Your task to perform on an android device: turn on data saver in the chrome app Image 0: 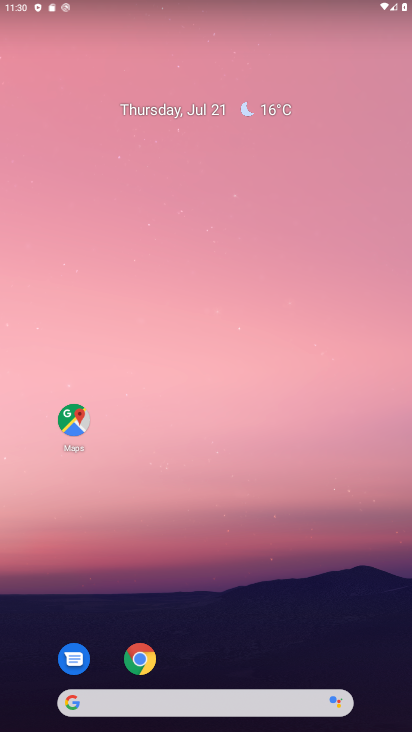
Step 0: click (140, 658)
Your task to perform on an android device: turn on data saver in the chrome app Image 1: 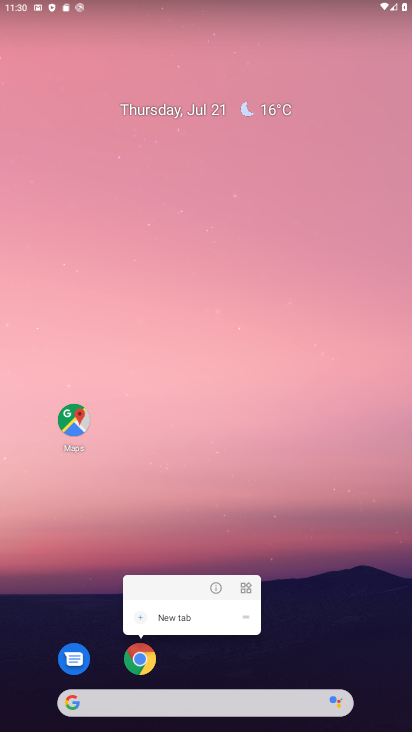
Step 1: click (137, 658)
Your task to perform on an android device: turn on data saver in the chrome app Image 2: 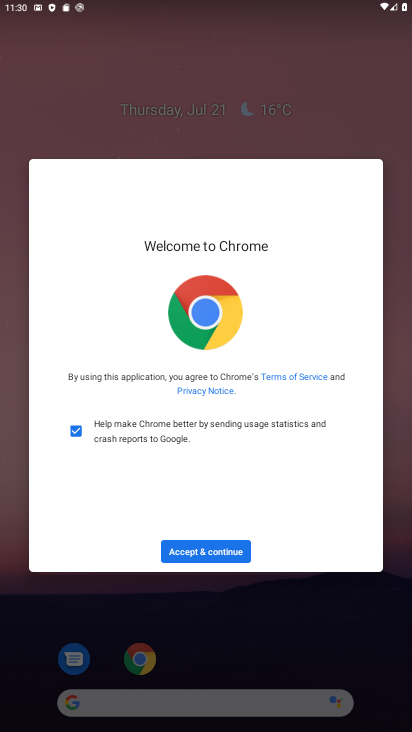
Step 2: click (204, 560)
Your task to perform on an android device: turn on data saver in the chrome app Image 3: 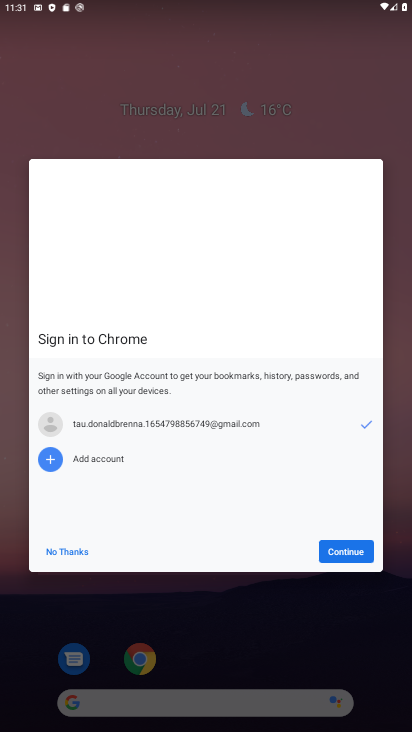
Step 3: click (331, 554)
Your task to perform on an android device: turn on data saver in the chrome app Image 4: 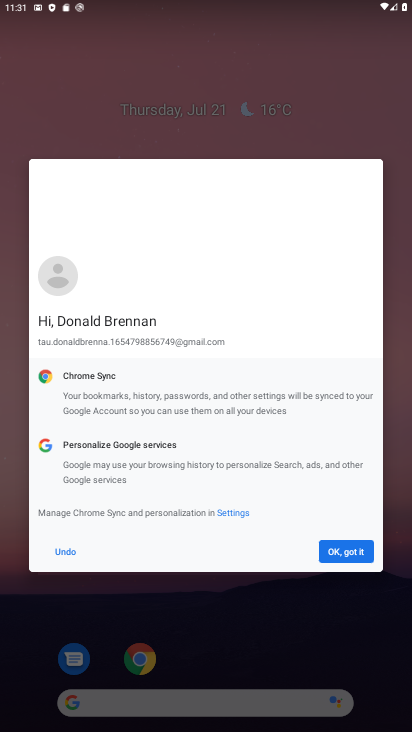
Step 4: click (331, 554)
Your task to perform on an android device: turn on data saver in the chrome app Image 5: 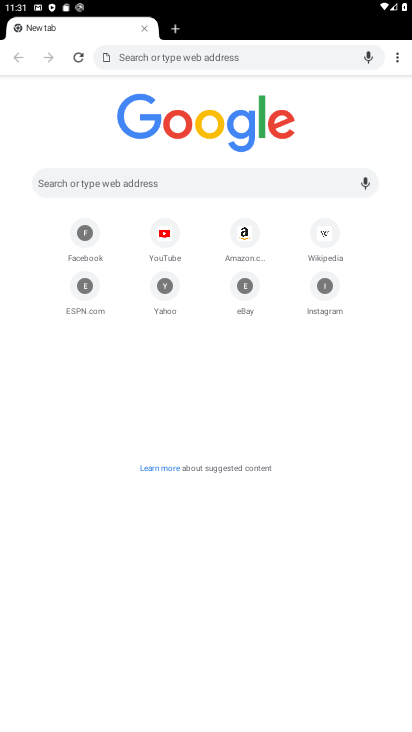
Step 5: click (393, 61)
Your task to perform on an android device: turn on data saver in the chrome app Image 6: 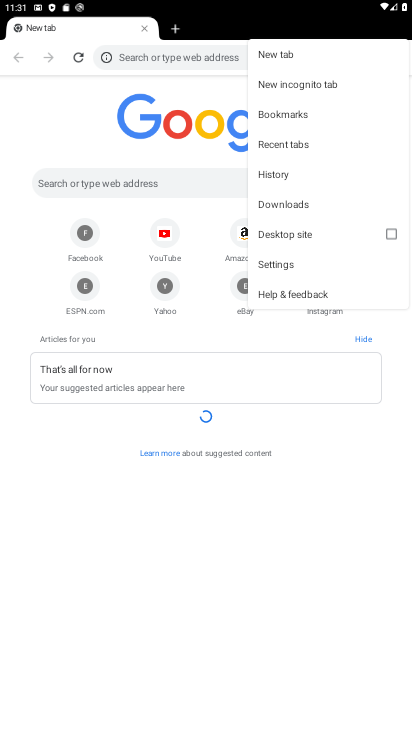
Step 6: click (277, 264)
Your task to perform on an android device: turn on data saver in the chrome app Image 7: 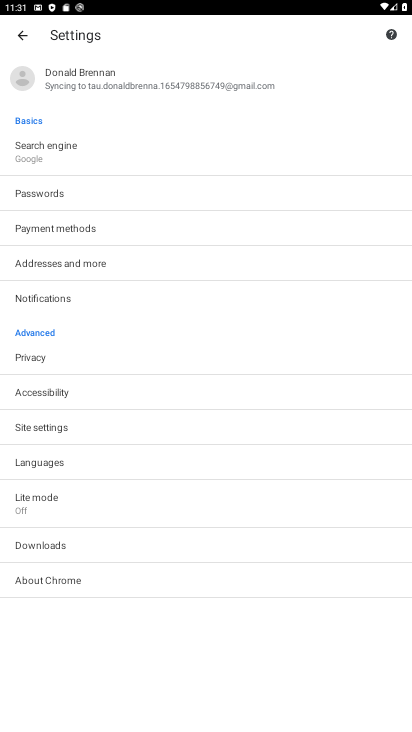
Step 7: click (38, 516)
Your task to perform on an android device: turn on data saver in the chrome app Image 8: 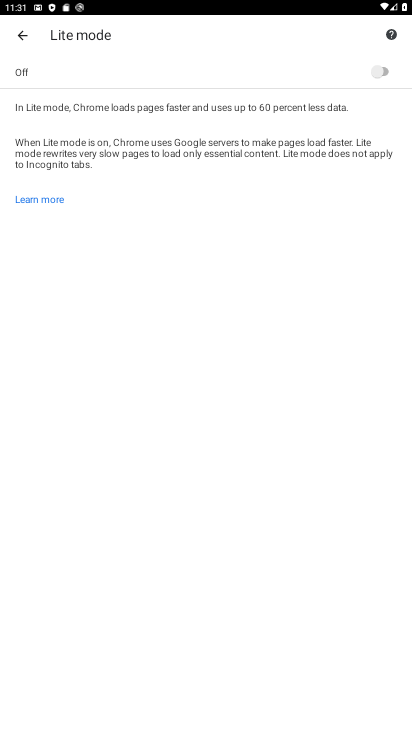
Step 8: click (383, 67)
Your task to perform on an android device: turn on data saver in the chrome app Image 9: 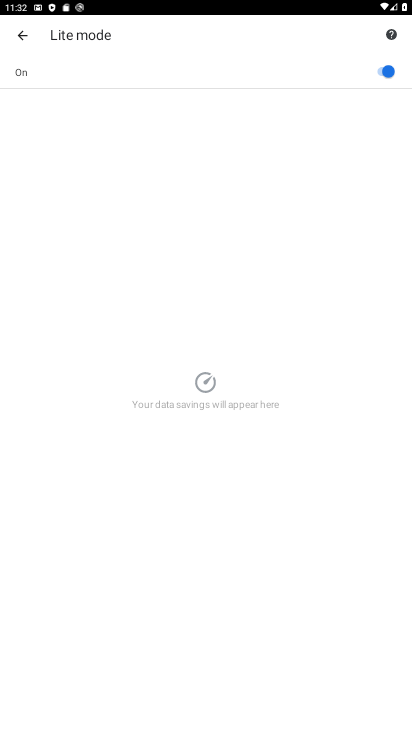
Step 9: task complete